Your task to perform on an android device: show emergency info Image 0: 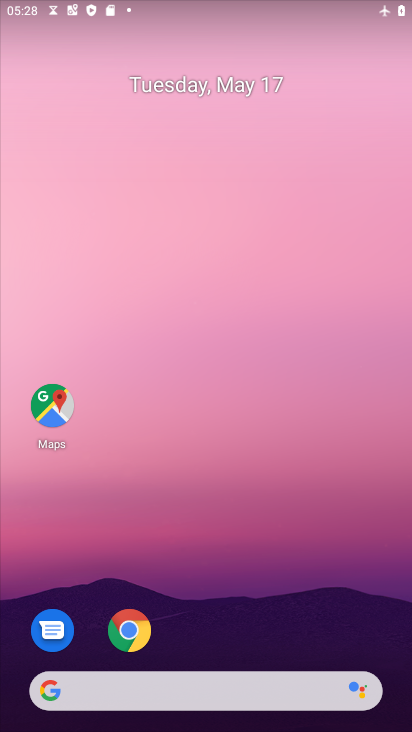
Step 0: press home button
Your task to perform on an android device: show emergency info Image 1: 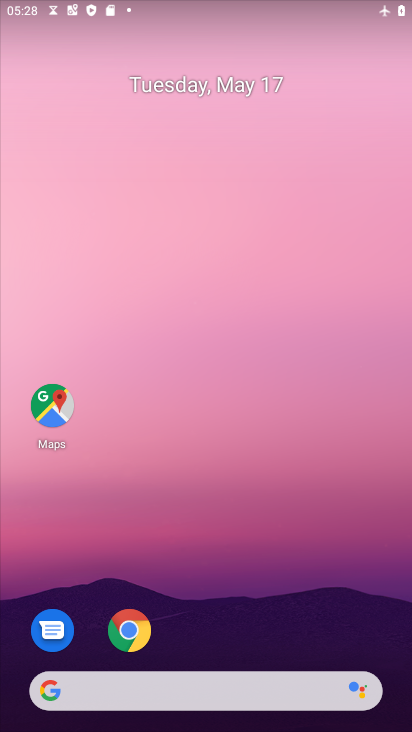
Step 1: drag from (264, 636) to (410, 0)
Your task to perform on an android device: show emergency info Image 2: 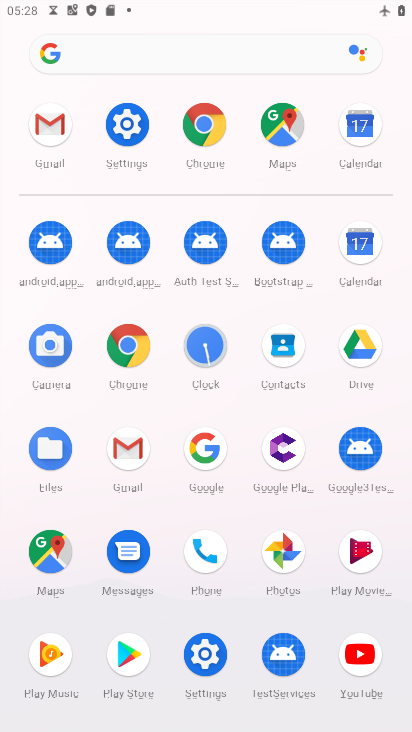
Step 2: click (217, 637)
Your task to perform on an android device: show emergency info Image 3: 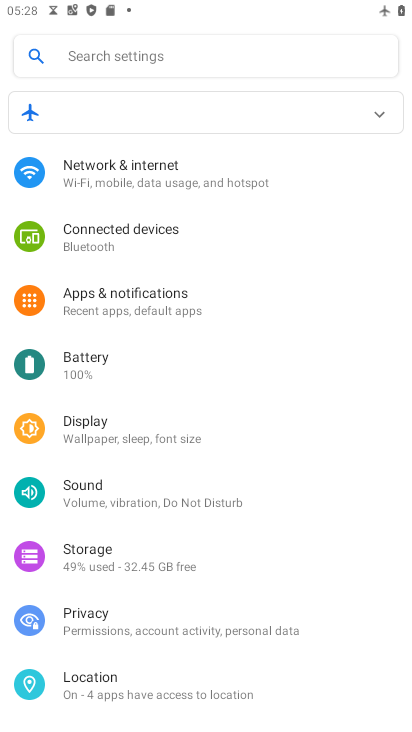
Step 3: drag from (187, 603) to (331, 283)
Your task to perform on an android device: show emergency info Image 4: 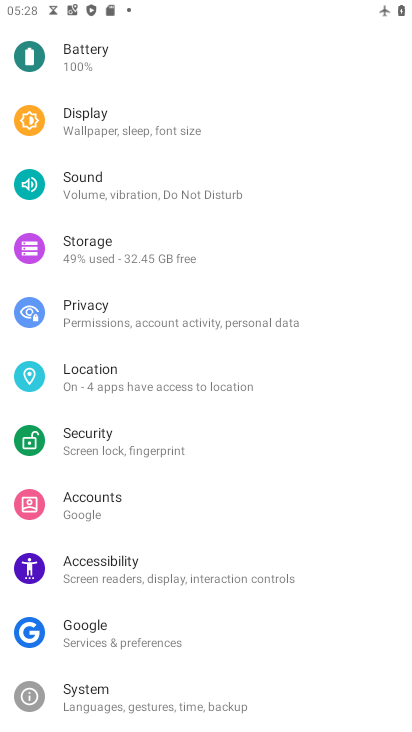
Step 4: drag from (196, 625) to (251, 382)
Your task to perform on an android device: show emergency info Image 5: 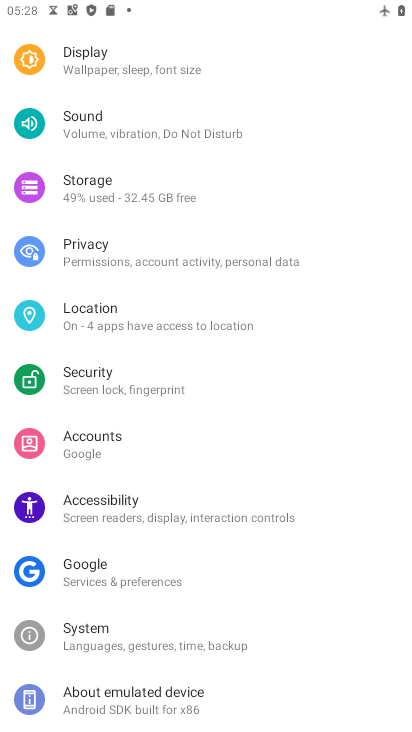
Step 5: click (204, 694)
Your task to perform on an android device: show emergency info Image 6: 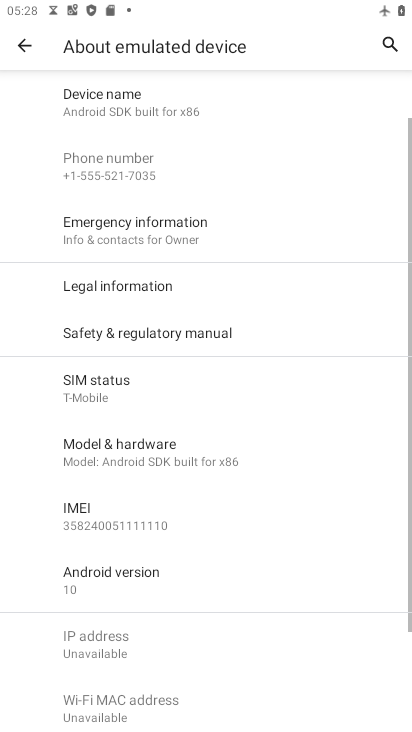
Step 6: click (183, 218)
Your task to perform on an android device: show emergency info Image 7: 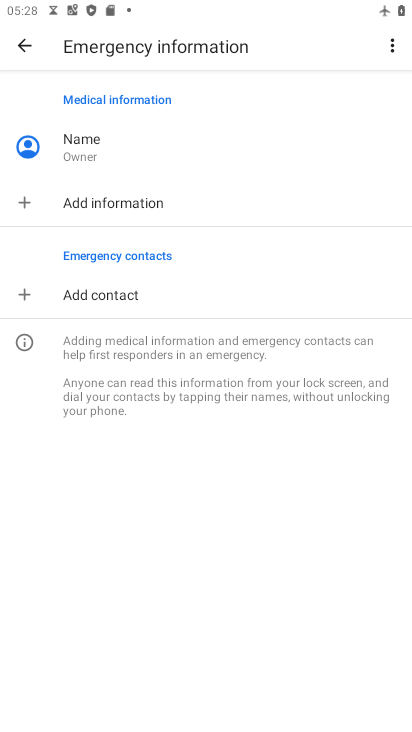
Step 7: task complete